Your task to perform on an android device: turn off improve location accuracy Image 0: 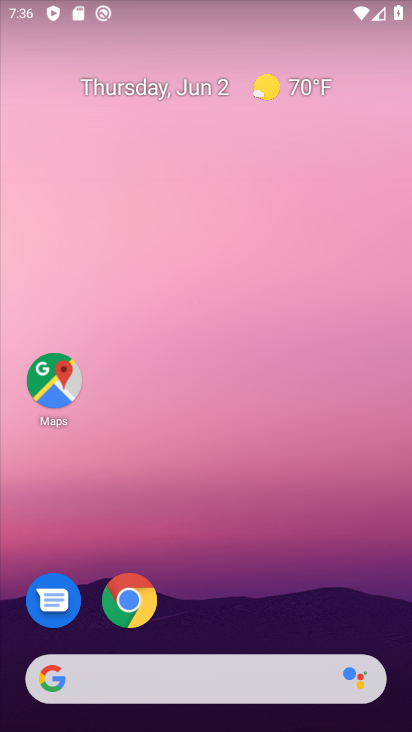
Step 0: drag from (196, 644) to (77, 4)
Your task to perform on an android device: turn off improve location accuracy Image 1: 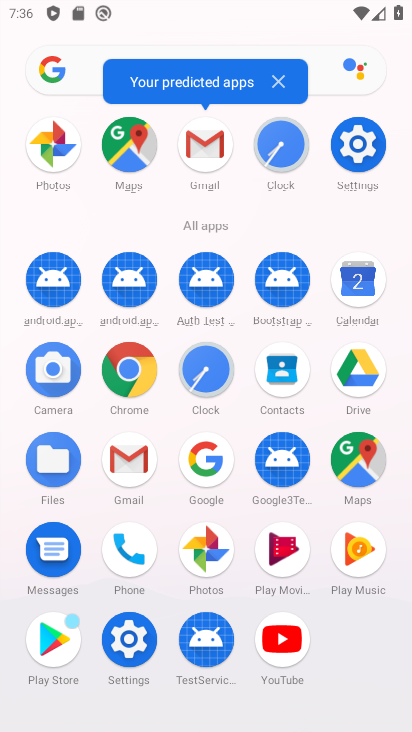
Step 1: click (126, 630)
Your task to perform on an android device: turn off improve location accuracy Image 2: 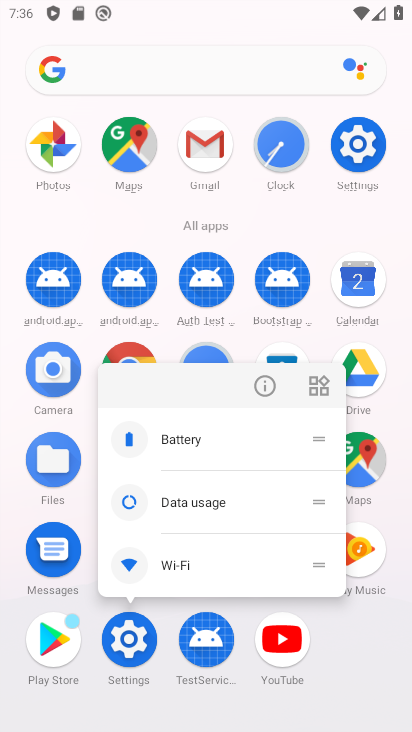
Step 2: click (263, 382)
Your task to perform on an android device: turn off improve location accuracy Image 3: 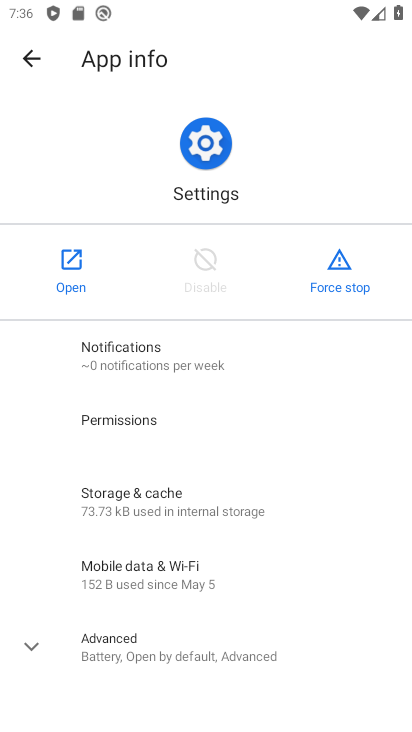
Step 3: click (68, 278)
Your task to perform on an android device: turn off improve location accuracy Image 4: 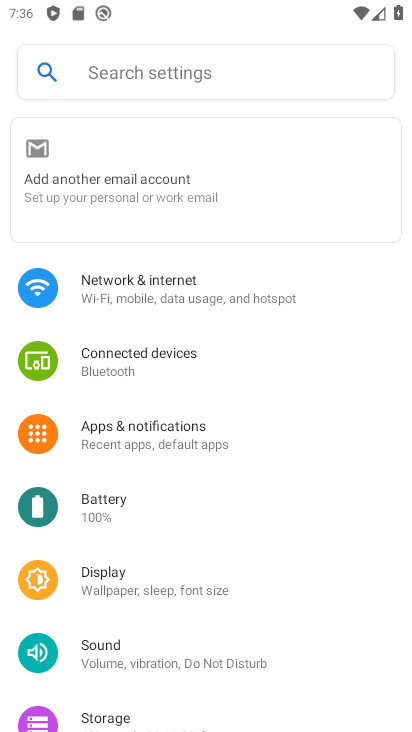
Step 4: drag from (159, 576) to (255, 106)
Your task to perform on an android device: turn off improve location accuracy Image 5: 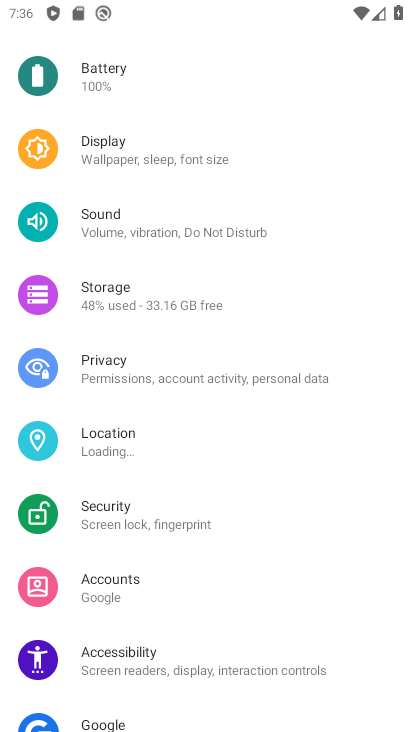
Step 5: click (128, 419)
Your task to perform on an android device: turn off improve location accuracy Image 6: 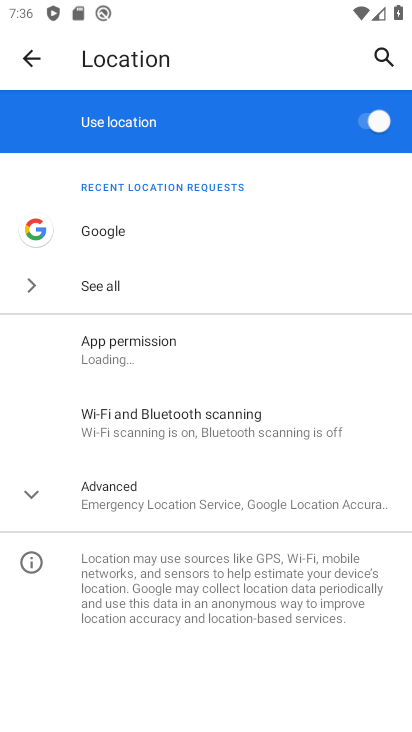
Step 6: click (139, 488)
Your task to perform on an android device: turn off improve location accuracy Image 7: 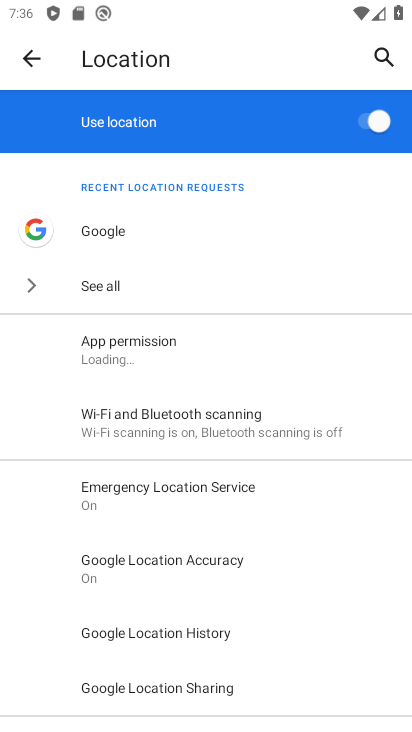
Step 7: click (175, 544)
Your task to perform on an android device: turn off improve location accuracy Image 8: 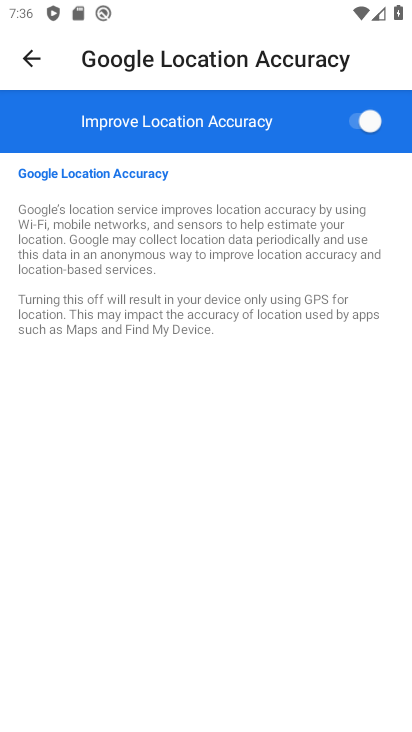
Step 8: click (376, 114)
Your task to perform on an android device: turn off improve location accuracy Image 9: 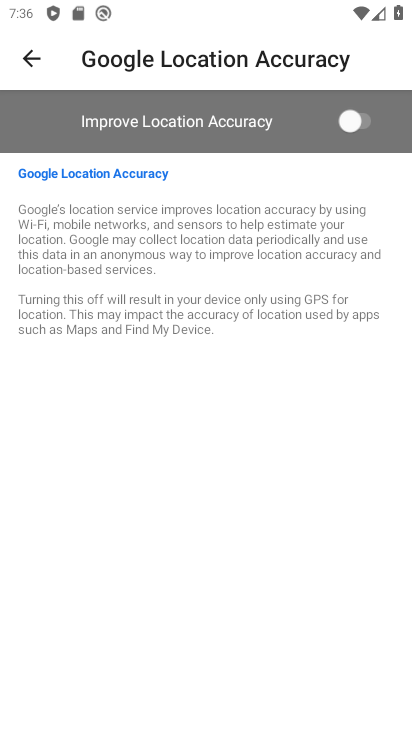
Step 9: task complete